Your task to perform on an android device: change the upload size in google photos Image 0: 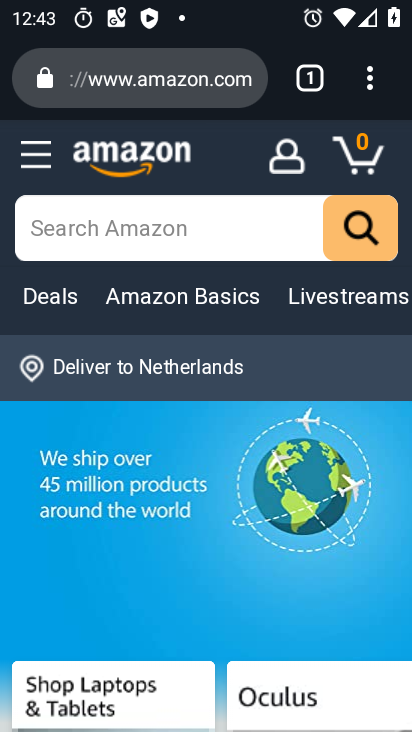
Step 0: press home button
Your task to perform on an android device: change the upload size in google photos Image 1: 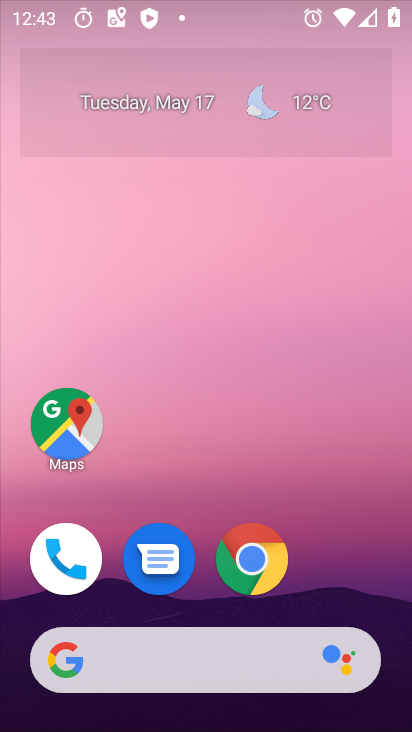
Step 1: drag from (358, 600) to (304, 167)
Your task to perform on an android device: change the upload size in google photos Image 2: 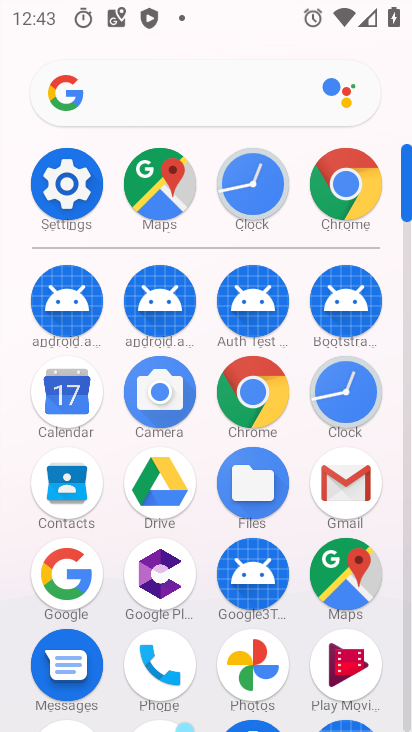
Step 2: click (261, 666)
Your task to perform on an android device: change the upload size in google photos Image 3: 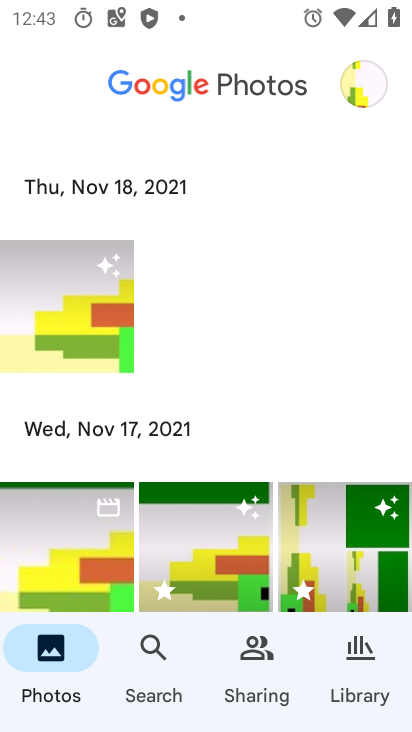
Step 3: click (357, 84)
Your task to perform on an android device: change the upload size in google photos Image 4: 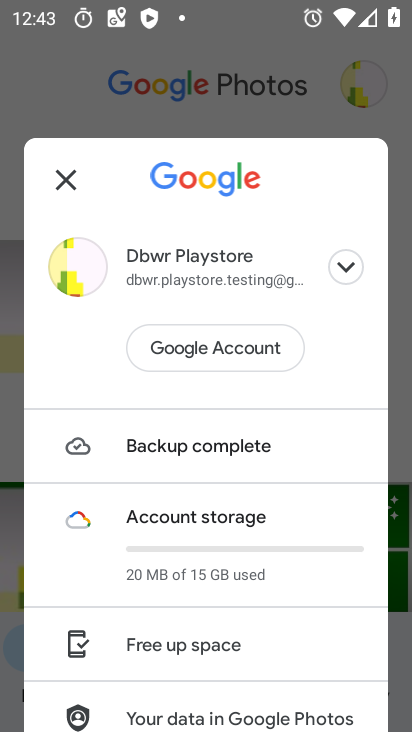
Step 4: drag from (173, 601) to (271, 110)
Your task to perform on an android device: change the upload size in google photos Image 5: 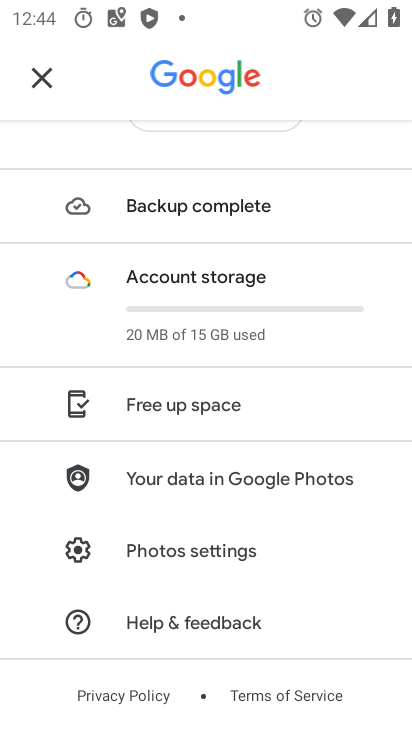
Step 5: click (243, 557)
Your task to perform on an android device: change the upload size in google photos Image 6: 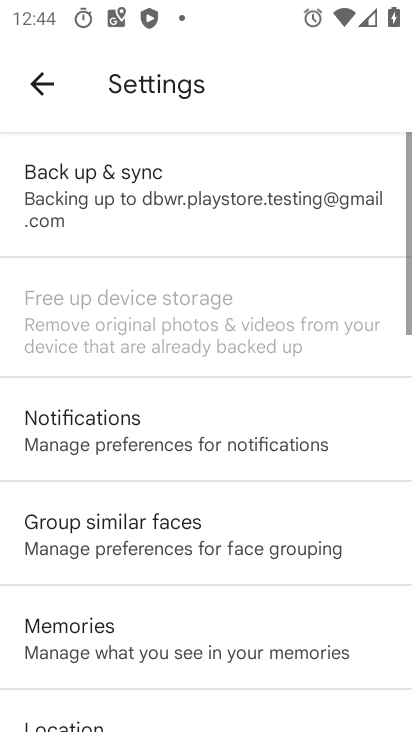
Step 6: click (189, 205)
Your task to perform on an android device: change the upload size in google photos Image 7: 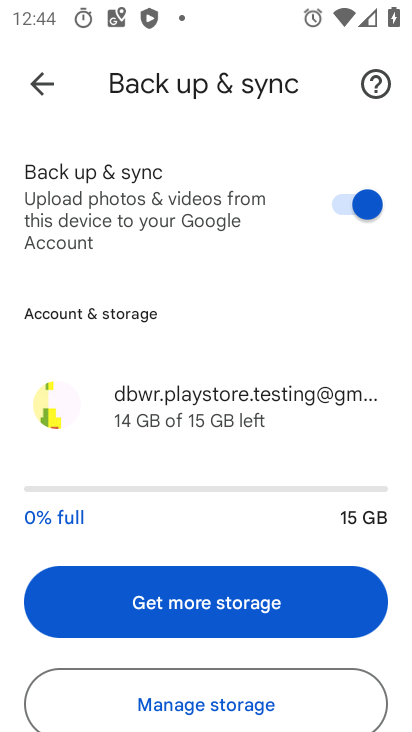
Step 7: drag from (223, 516) to (289, 83)
Your task to perform on an android device: change the upload size in google photos Image 8: 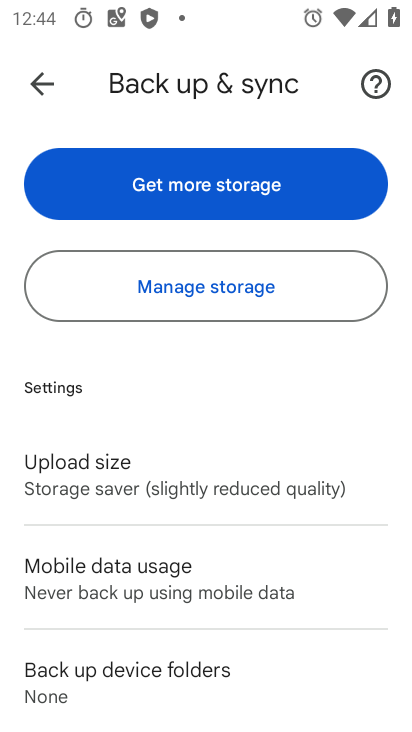
Step 8: click (167, 496)
Your task to perform on an android device: change the upload size in google photos Image 9: 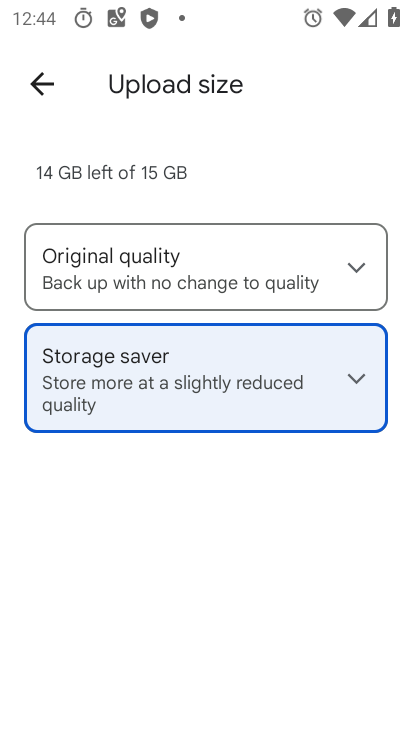
Step 9: click (168, 303)
Your task to perform on an android device: change the upload size in google photos Image 10: 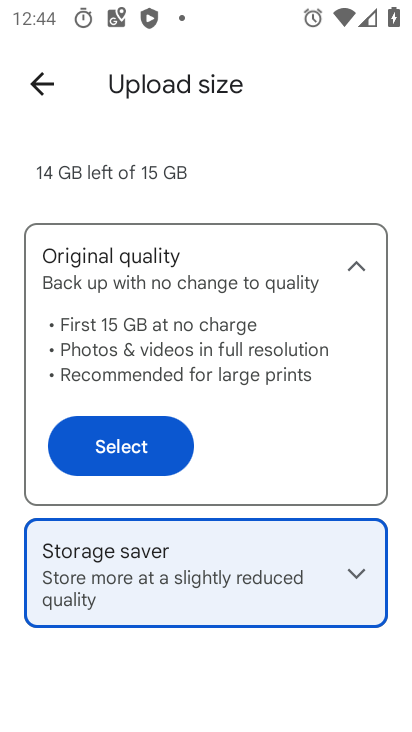
Step 10: click (136, 430)
Your task to perform on an android device: change the upload size in google photos Image 11: 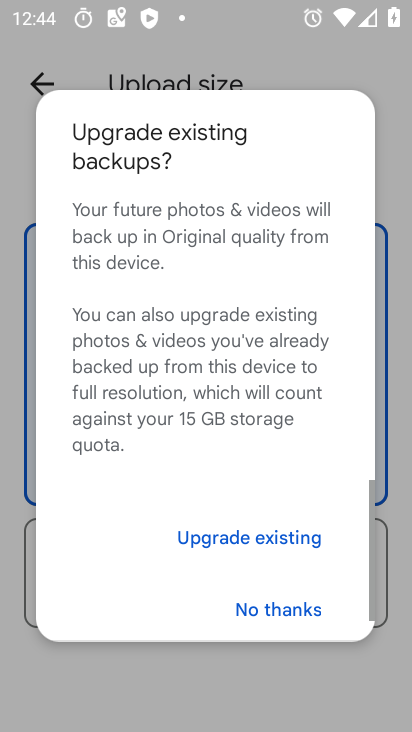
Step 11: click (302, 614)
Your task to perform on an android device: change the upload size in google photos Image 12: 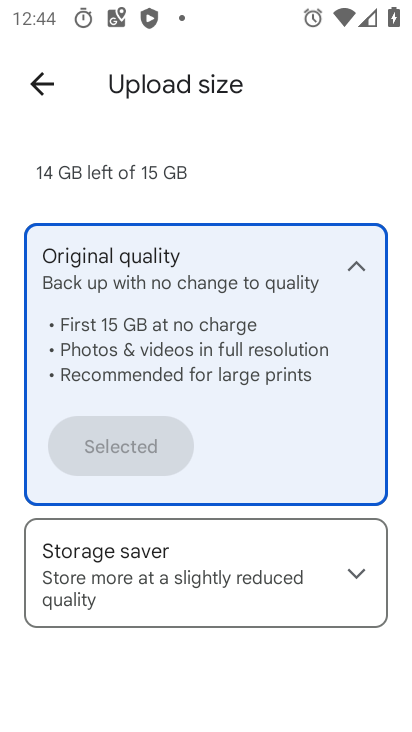
Step 12: task complete